Your task to perform on an android device: toggle location history Image 0: 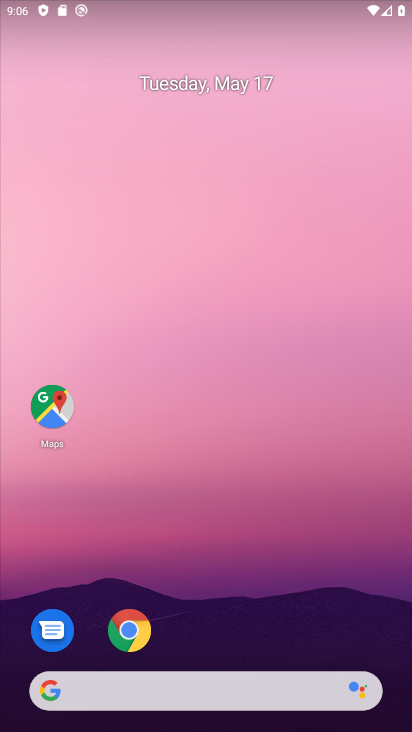
Step 0: drag from (252, 619) to (268, 222)
Your task to perform on an android device: toggle location history Image 1: 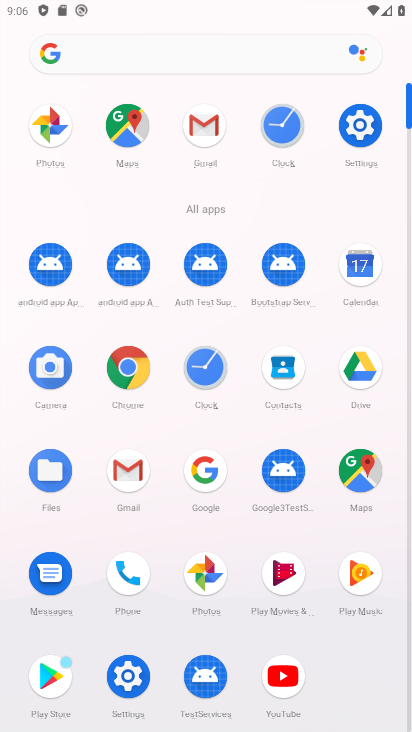
Step 1: click (360, 127)
Your task to perform on an android device: toggle location history Image 2: 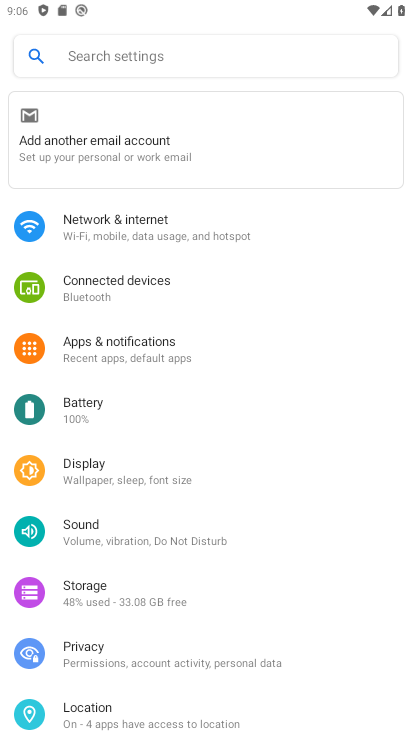
Step 2: click (124, 707)
Your task to perform on an android device: toggle location history Image 3: 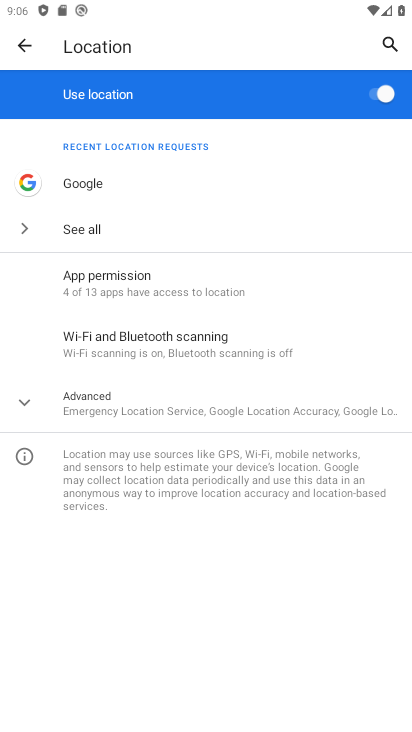
Step 3: click (200, 416)
Your task to perform on an android device: toggle location history Image 4: 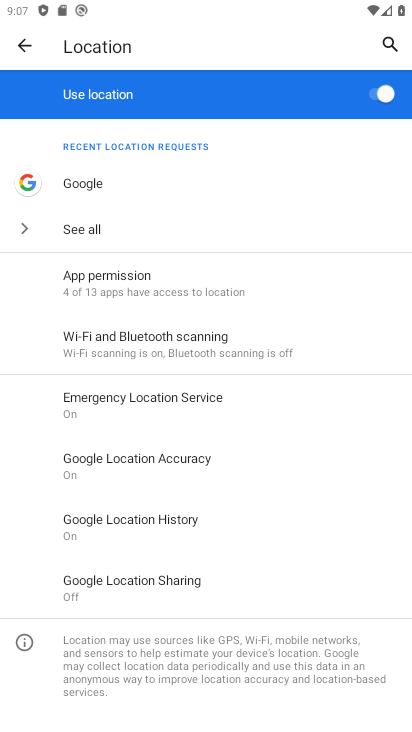
Step 4: click (158, 518)
Your task to perform on an android device: toggle location history Image 5: 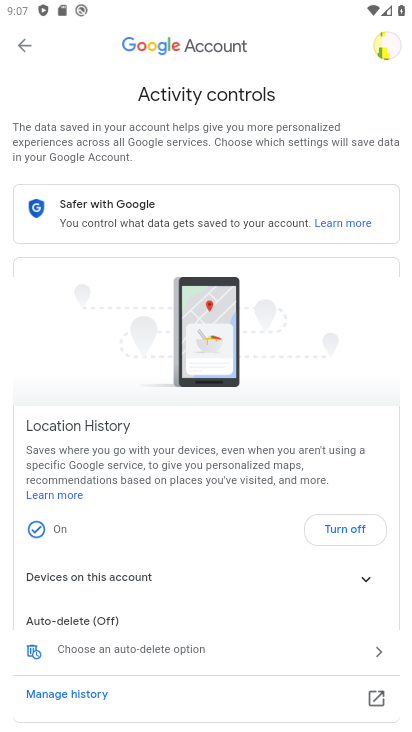
Step 5: click (359, 534)
Your task to perform on an android device: toggle location history Image 6: 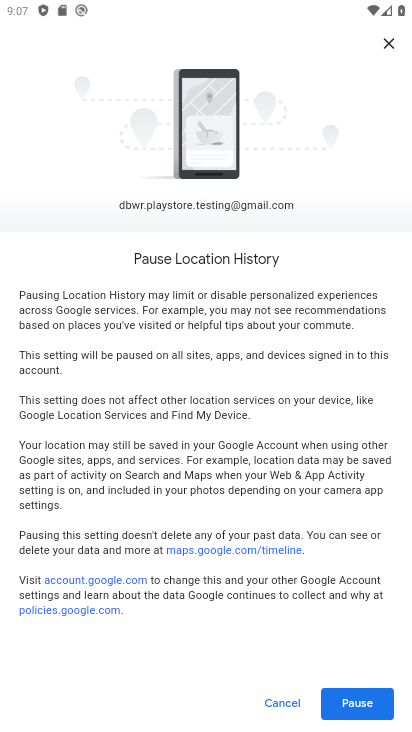
Step 6: click (359, 706)
Your task to perform on an android device: toggle location history Image 7: 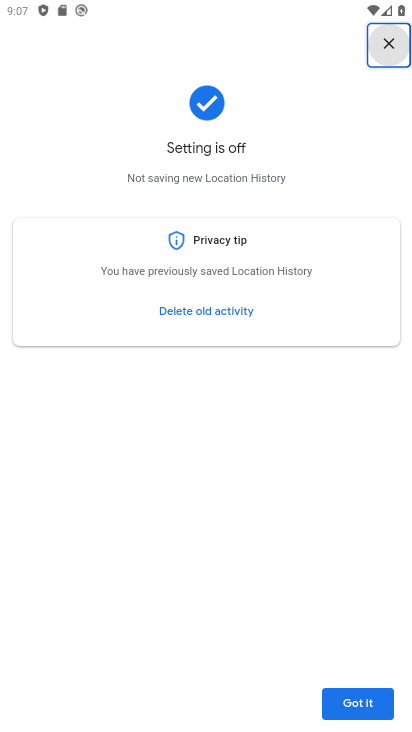
Step 7: click (359, 706)
Your task to perform on an android device: toggle location history Image 8: 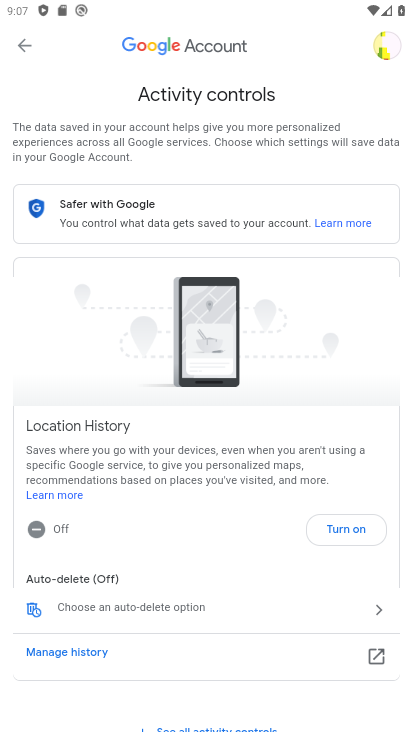
Step 8: task complete